Your task to perform on an android device: open chrome privacy settings Image 0: 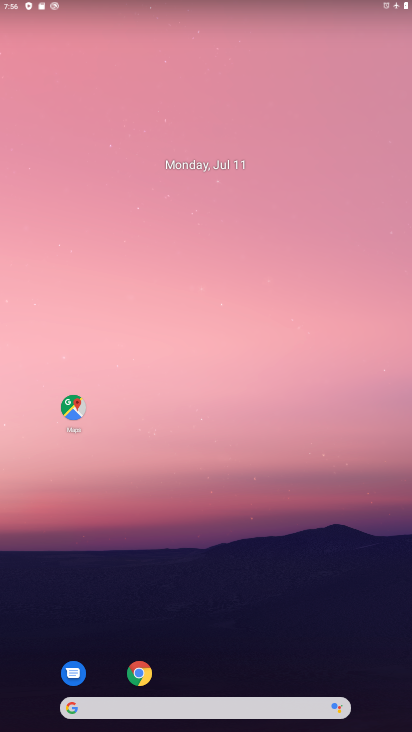
Step 0: drag from (241, 631) to (198, 176)
Your task to perform on an android device: open chrome privacy settings Image 1: 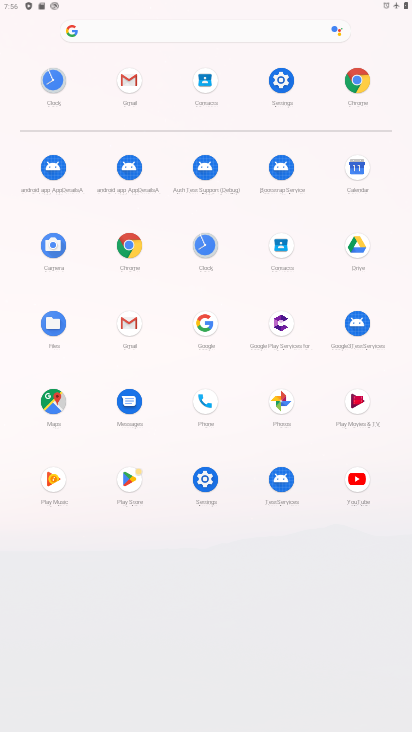
Step 1: click (130, 246)
Your task to perform on an android device: open chrome privacy settings Image 2: 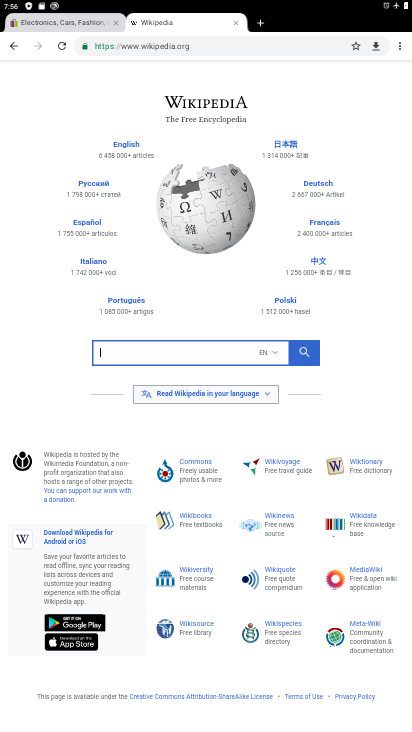
Step 2: drag from (400, 43) to (315, 276)
Your task to perform on an android device: open chrome privacy settings Image 3: 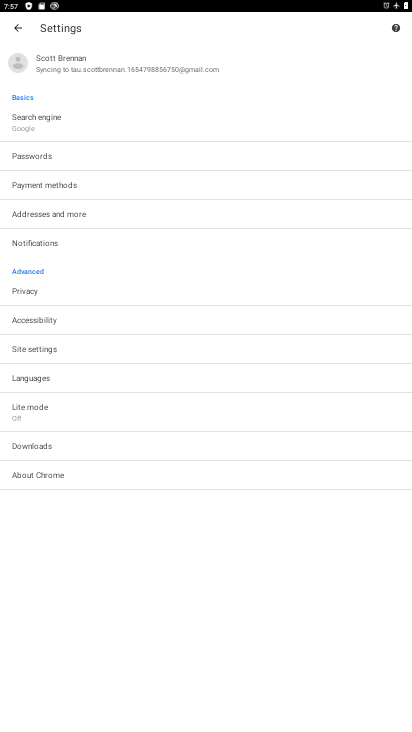
Step 3: click (29, 293)
Your task to perform on an android device: open chrome privacy settings Image 4: 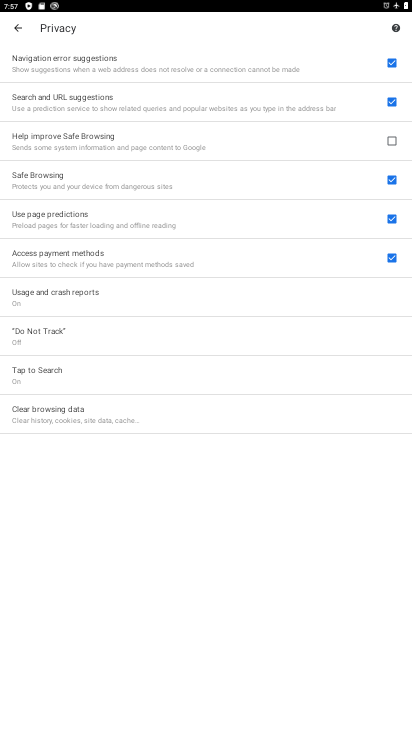
Step 4: task complete